Your task to perform on an android device: install app "Grab" Image 0: 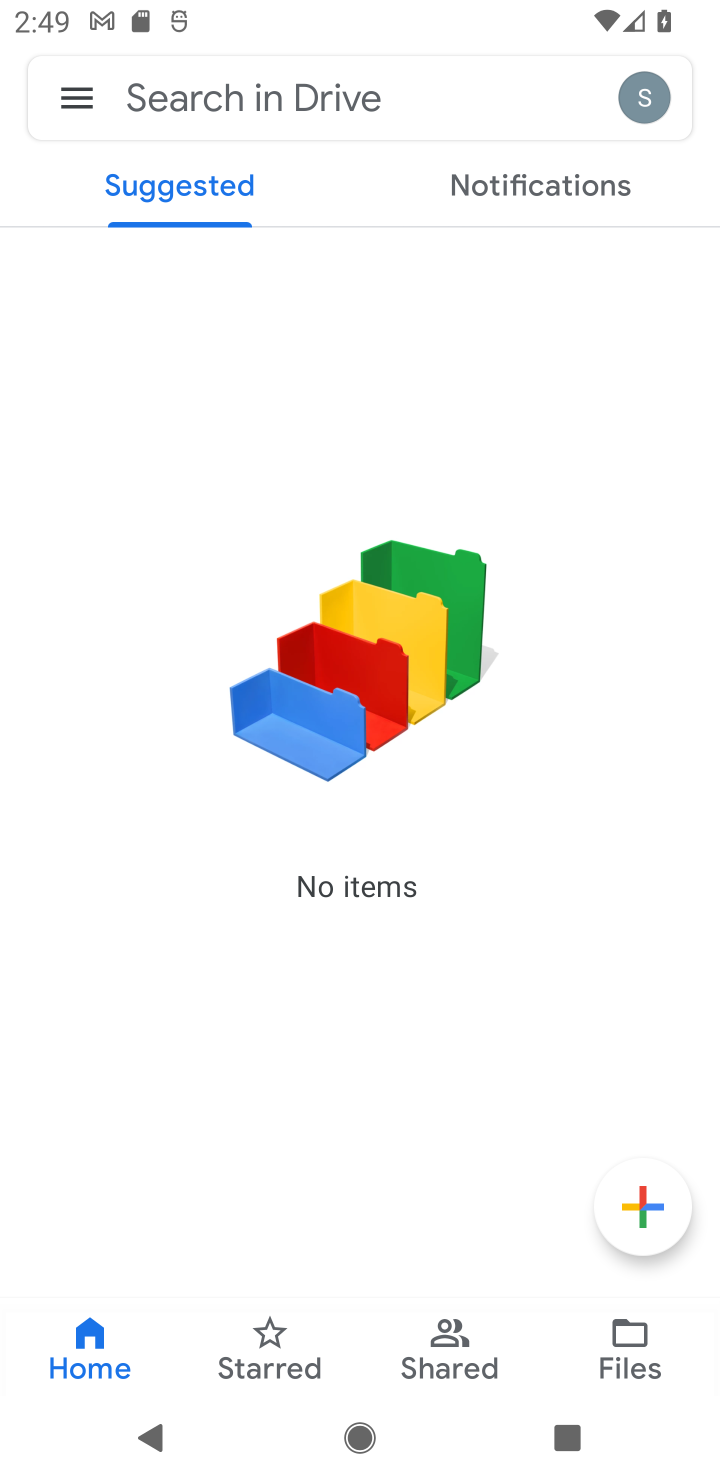
Step 0: press home button
Your task to perform on an android device: install app "Grab" Image 1: 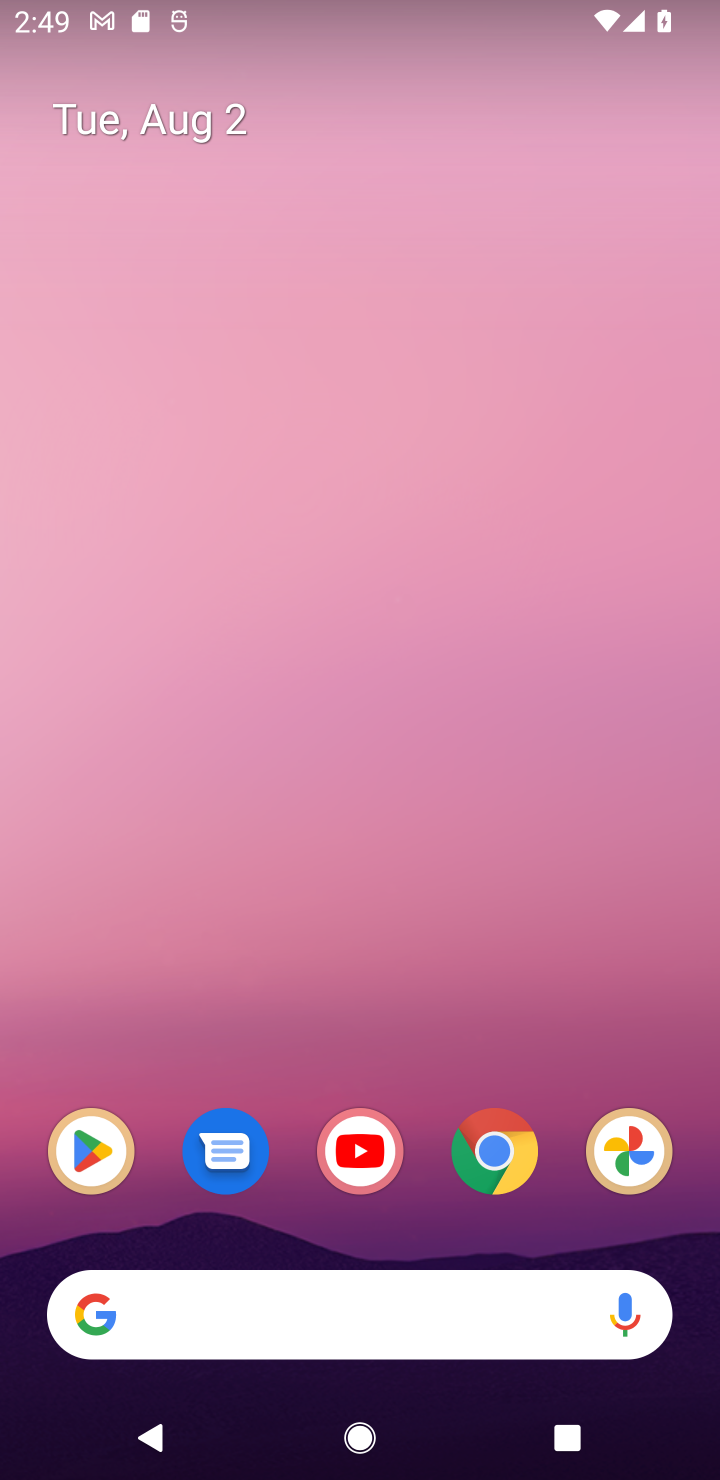
Step 1: click (82, 1166)
Your task to perform on an android device: install app "Grab" Image 2: 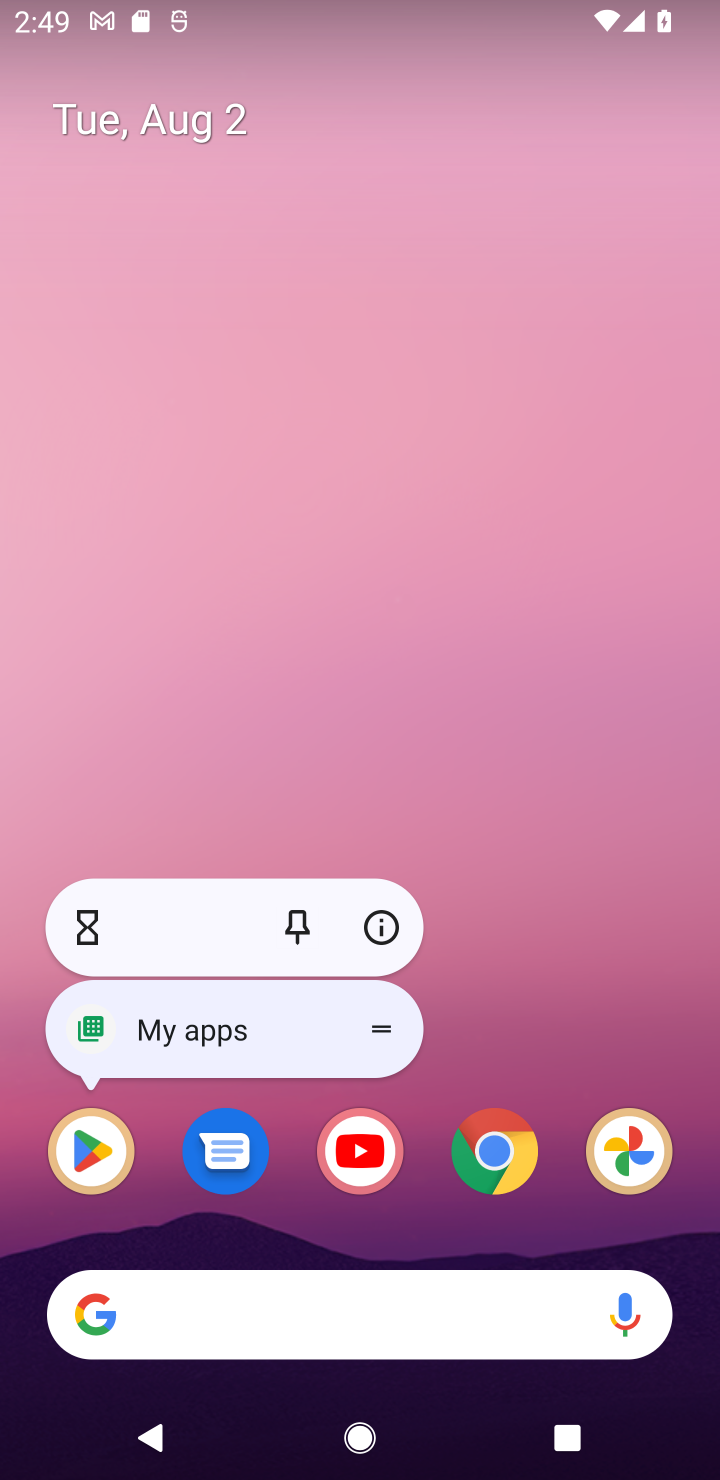
Step 2: click (98, 1143)
Your task to perform on an android device: install app "Grab" Image 3: 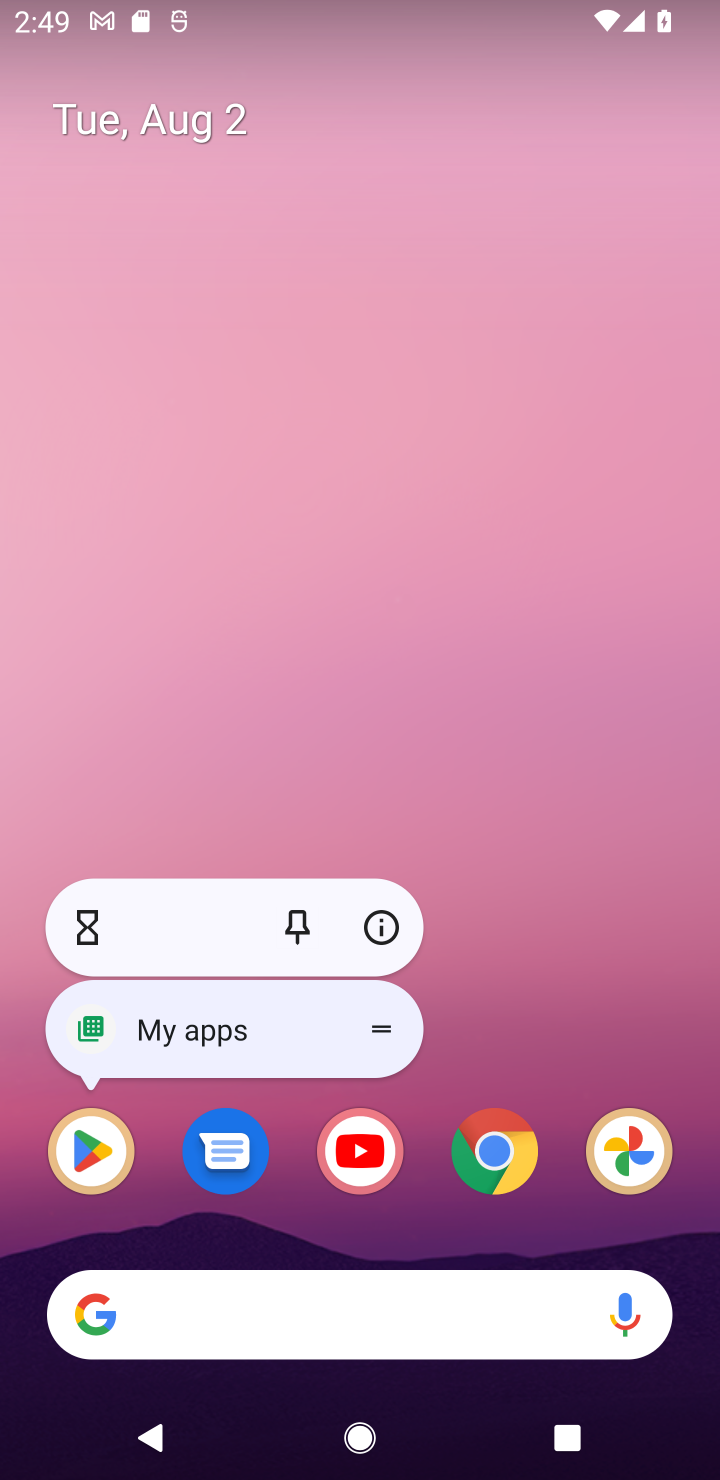
Step 3: click (573, 859)
Your task to perform on an android device: install app "Grab" Image 4: 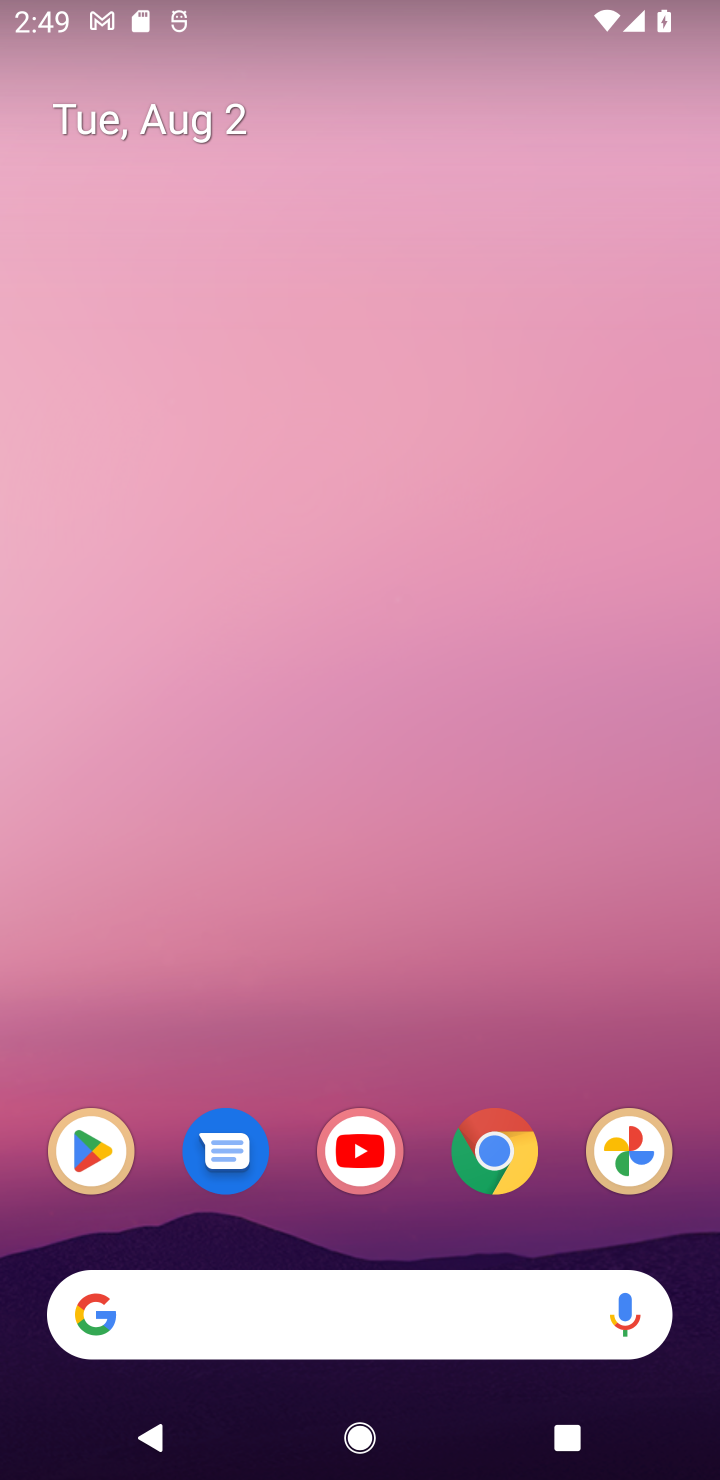
Step 4: click (104, 1170)
Your task to perform on an android device: install app "Grab" Image 5: 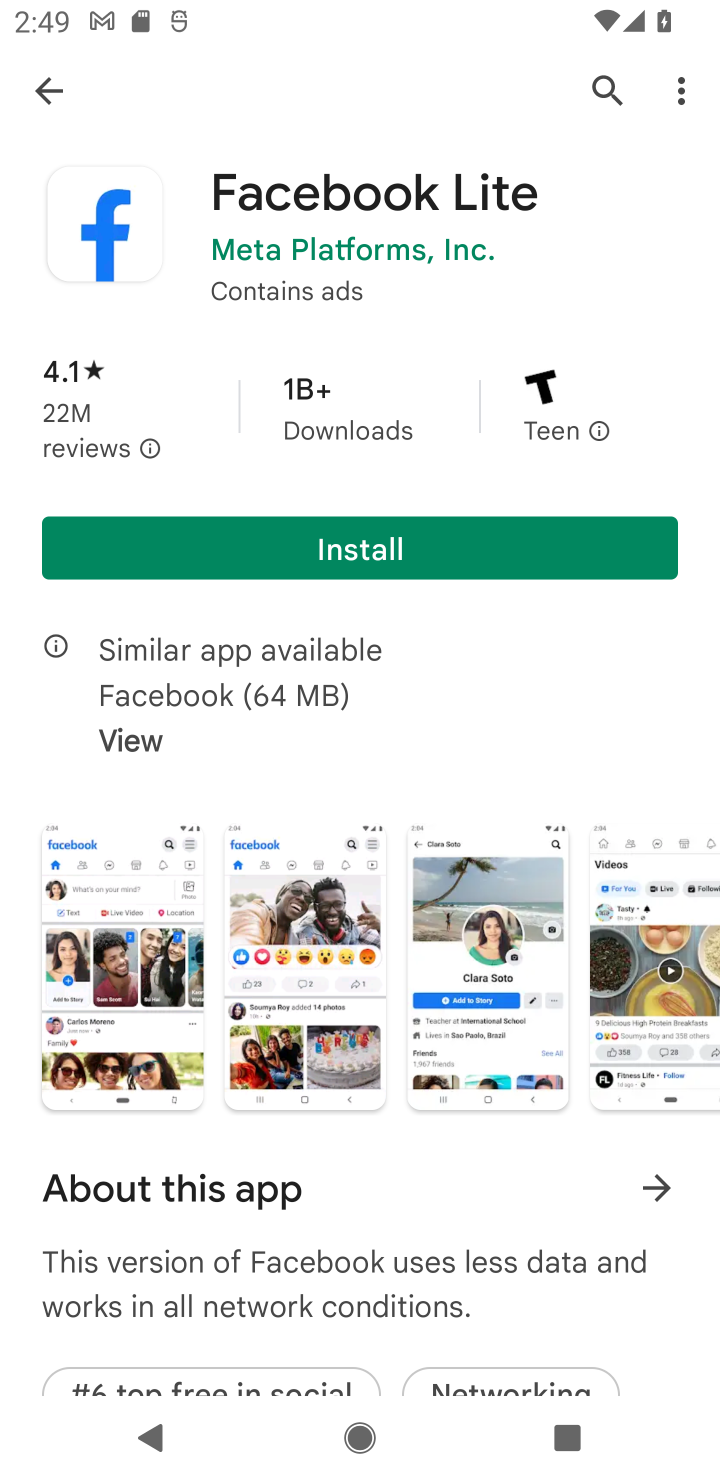
Step 5: click (99, 1158)
Your task to perform on an android device: install app "Grab" Image 6: 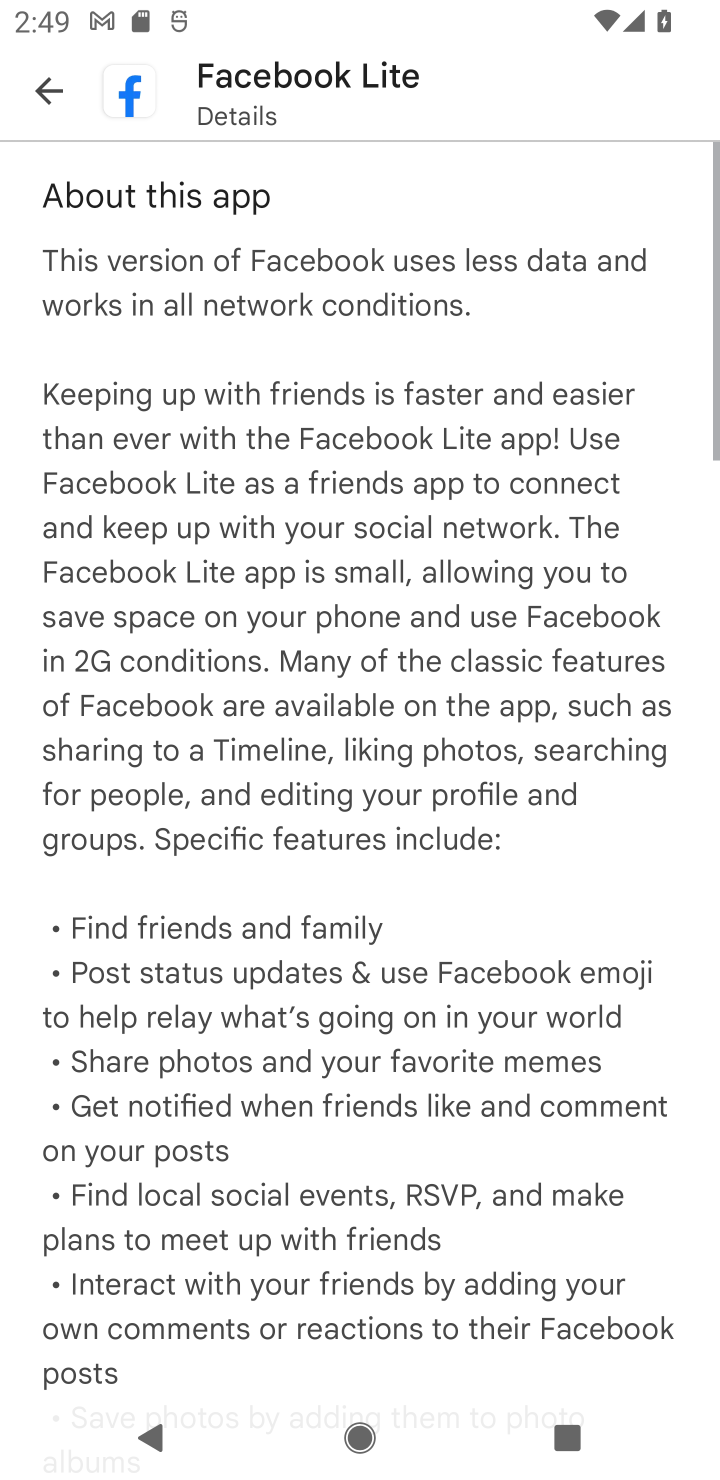
Step 6: press back button
Your task to perform on an android device: install app "Grab" Image 7: 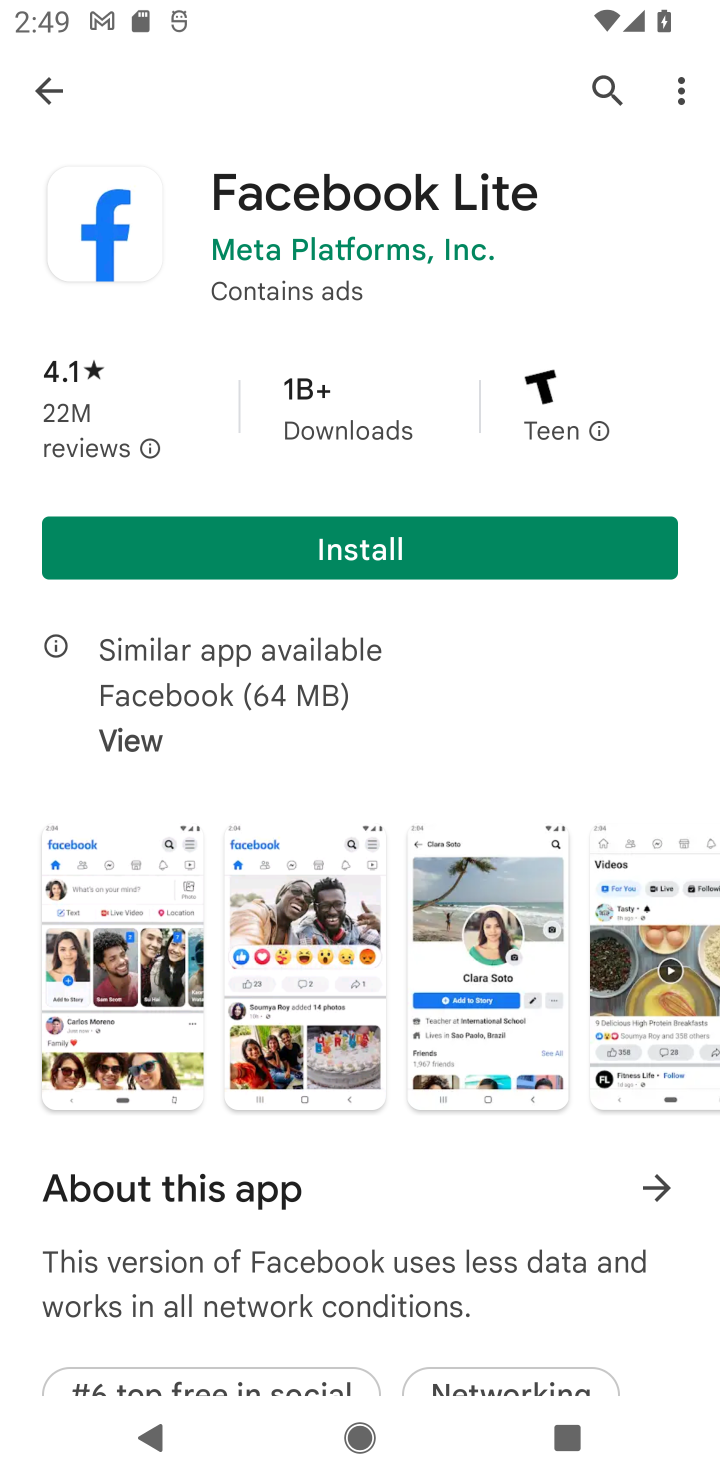
Step 7: press back button
Your task to perform on an android device: install app "Grab" Image 8: 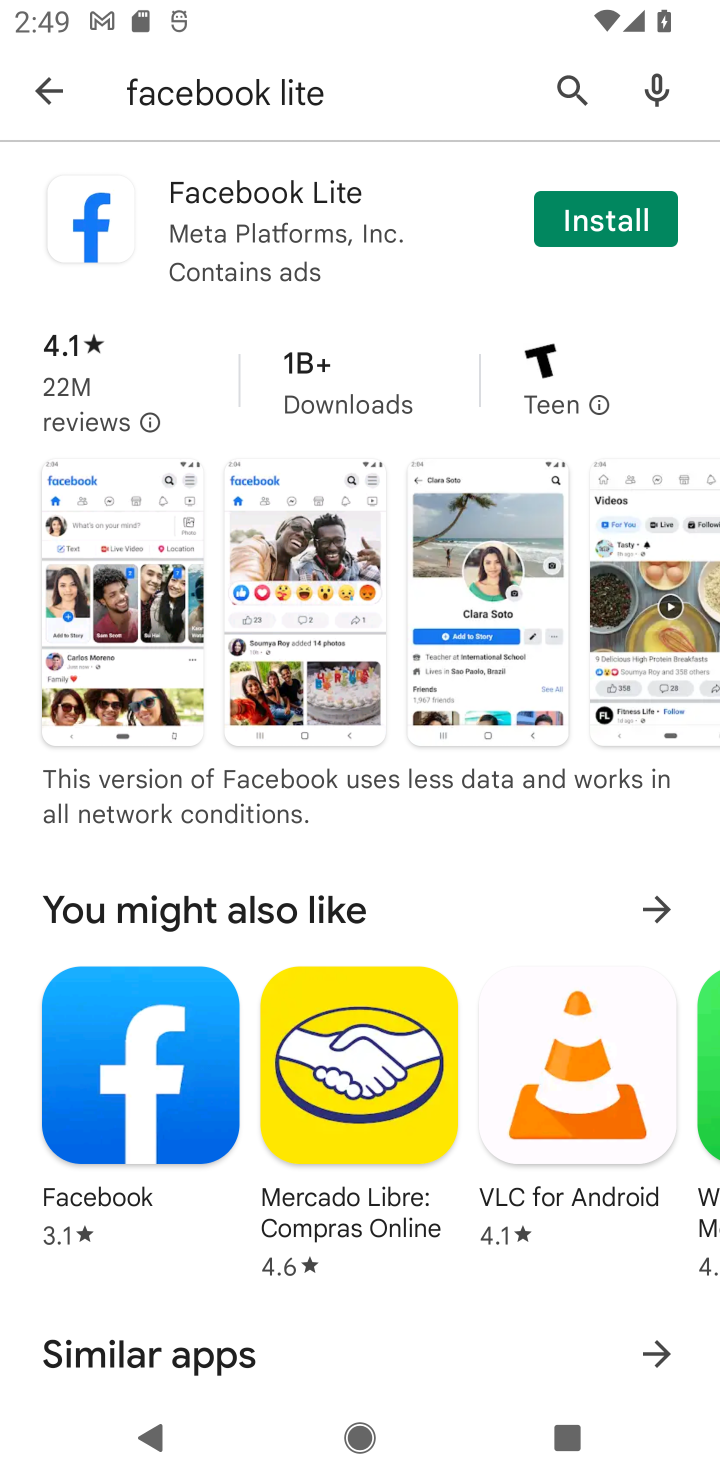
Step 8: press back button
Your task to perform on an android device: install app "Grab" Image 9: 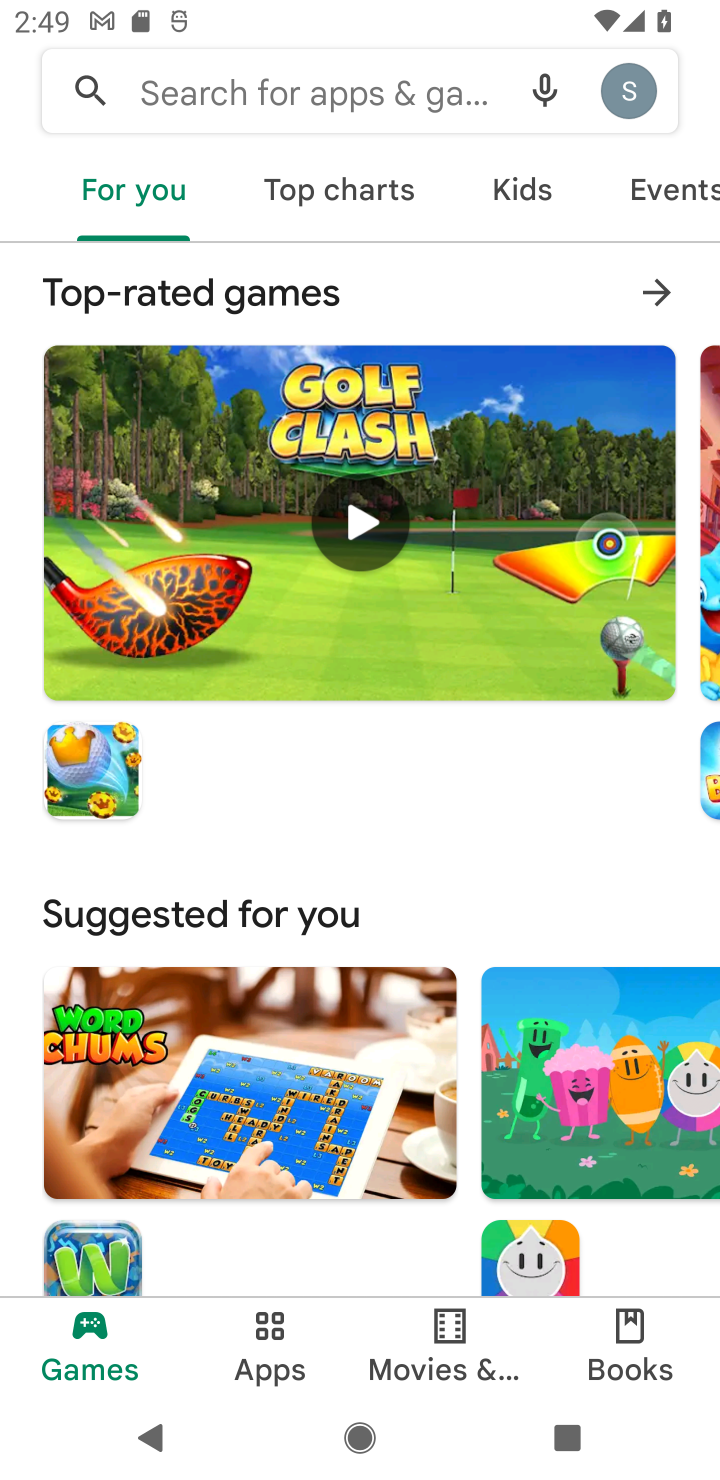
Step 9: click (296, 83)
Your task to perform on an android device: install app "Grab" Image 10: 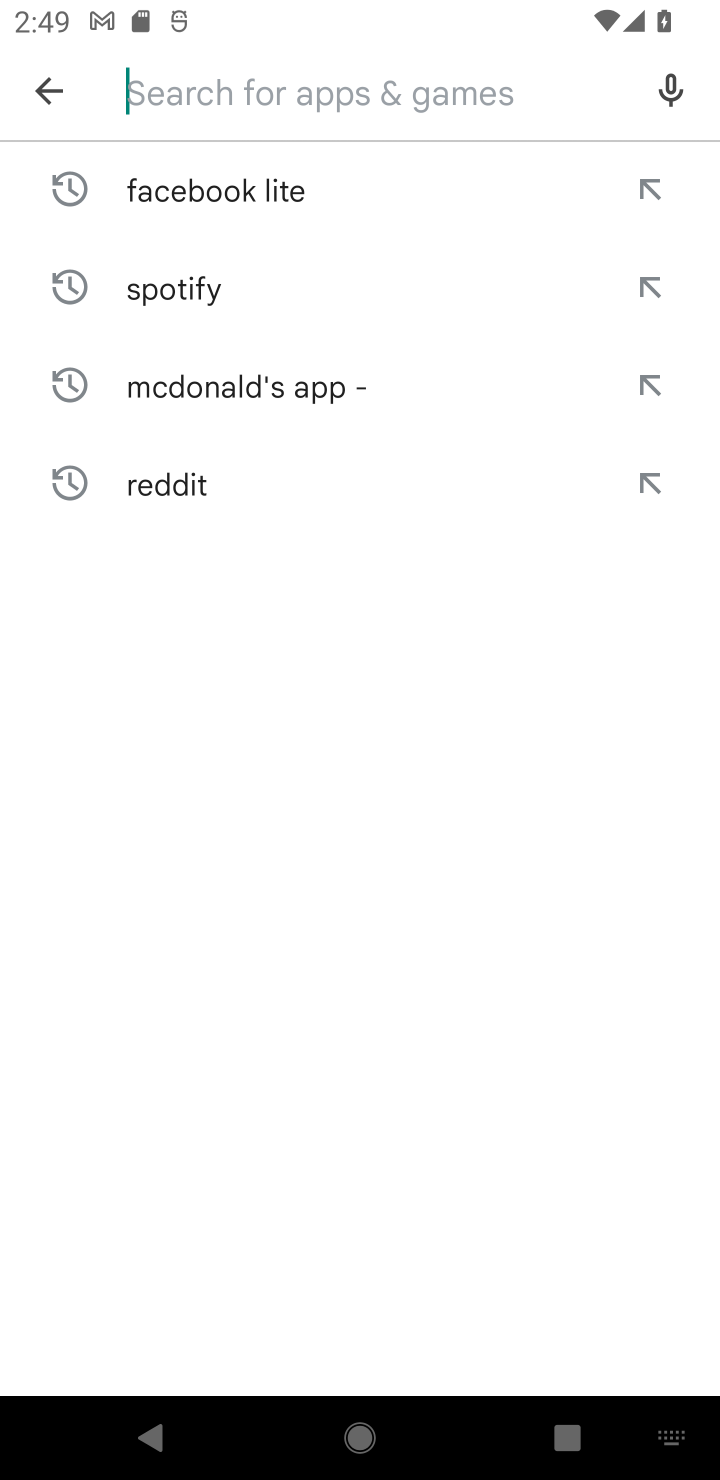
Step 10: type "grab"
Your task to perform on an android device: install app "Grab" Image 11: 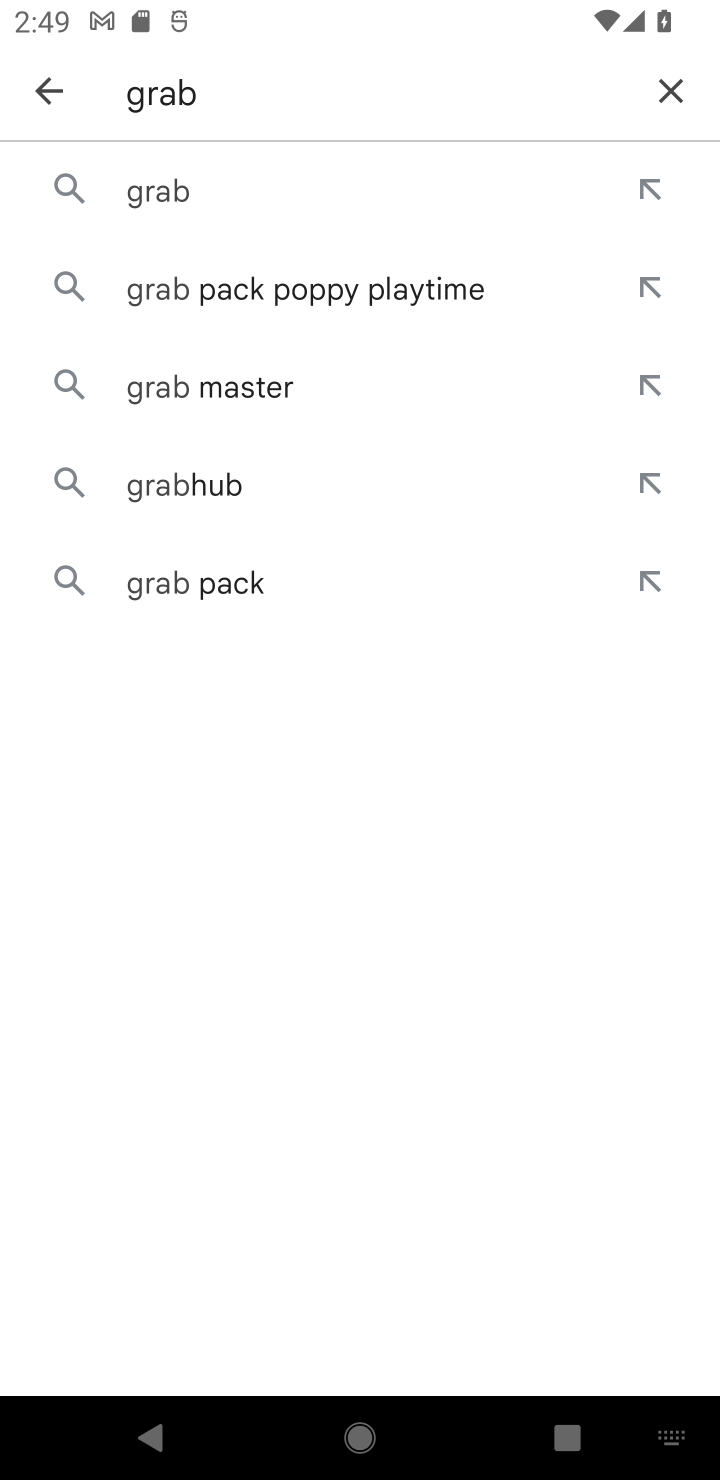
Step 11: click (354, 192)
Your task to perform on an android device: install app "Grab" Image 12: 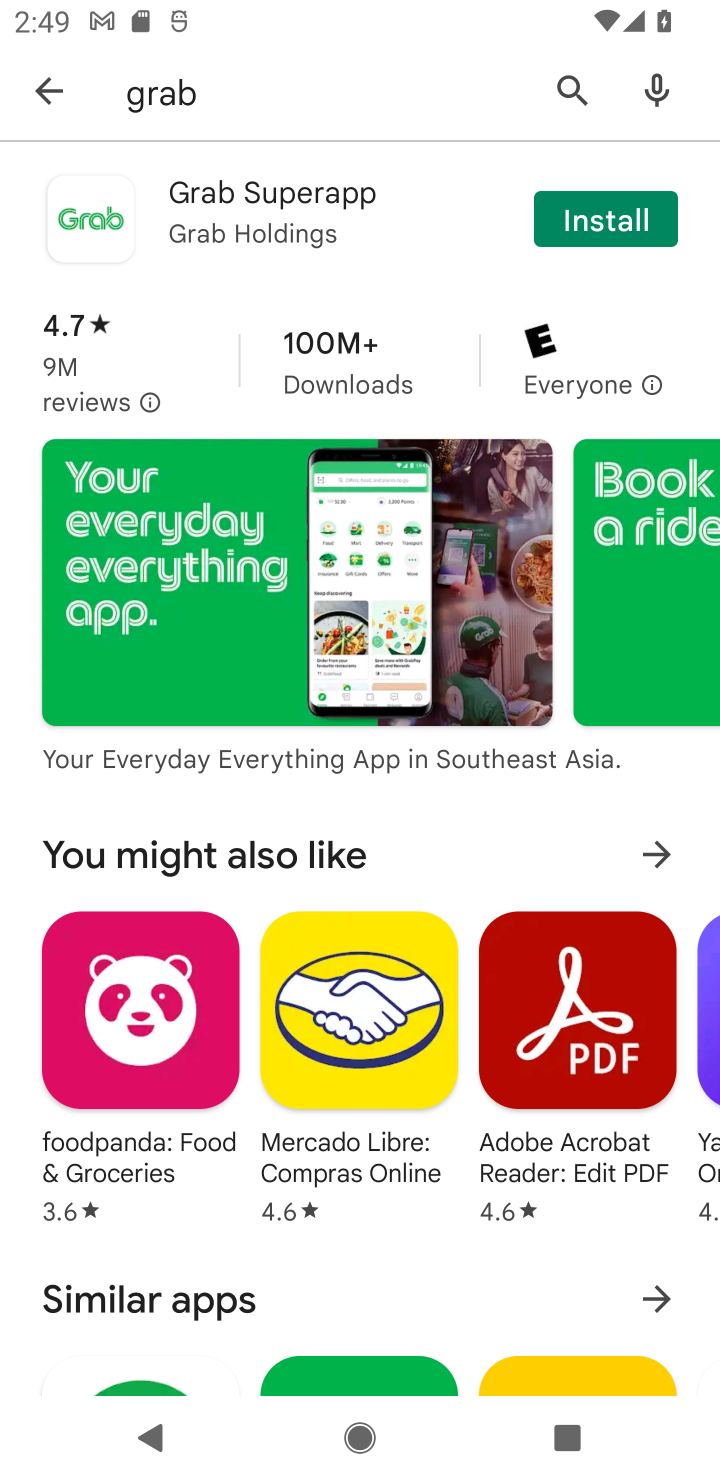
Step 12: click (587, 220)
Your task to perform on an android device: install app "Grab" Image 13: 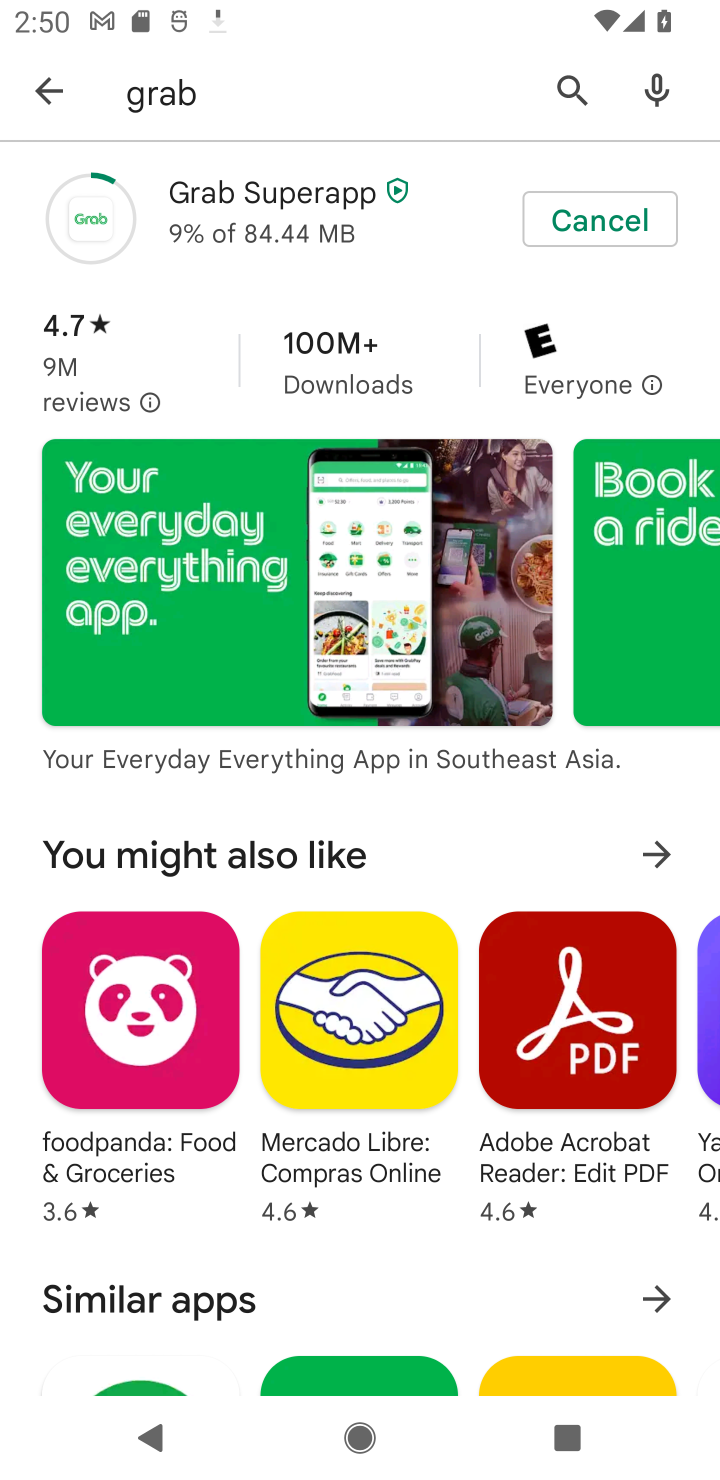
Step 13: click (633, 219)
Your task to perform on an android device: install app "Grab" Image 14: 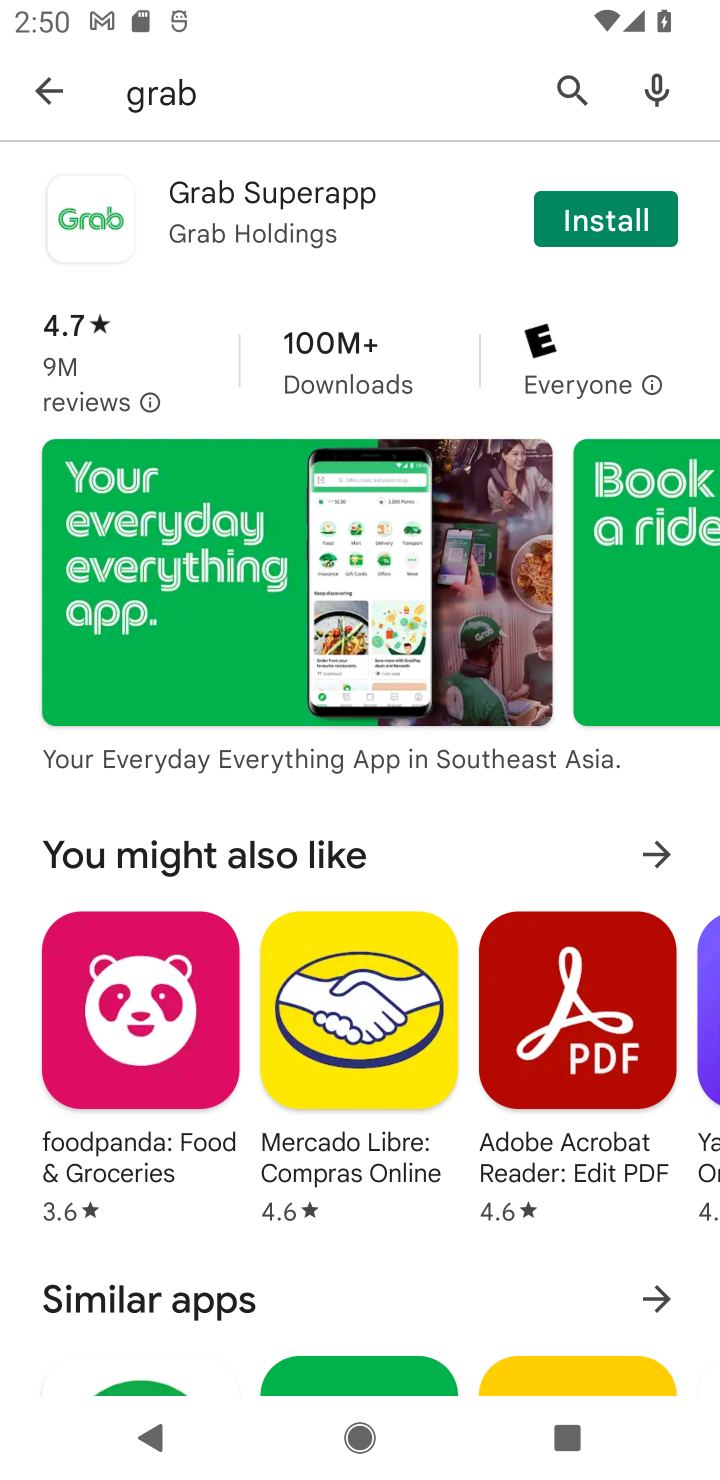
Step 14: click (48, 109)
Your task to perform on an android device: install app "Grab" Image 15: 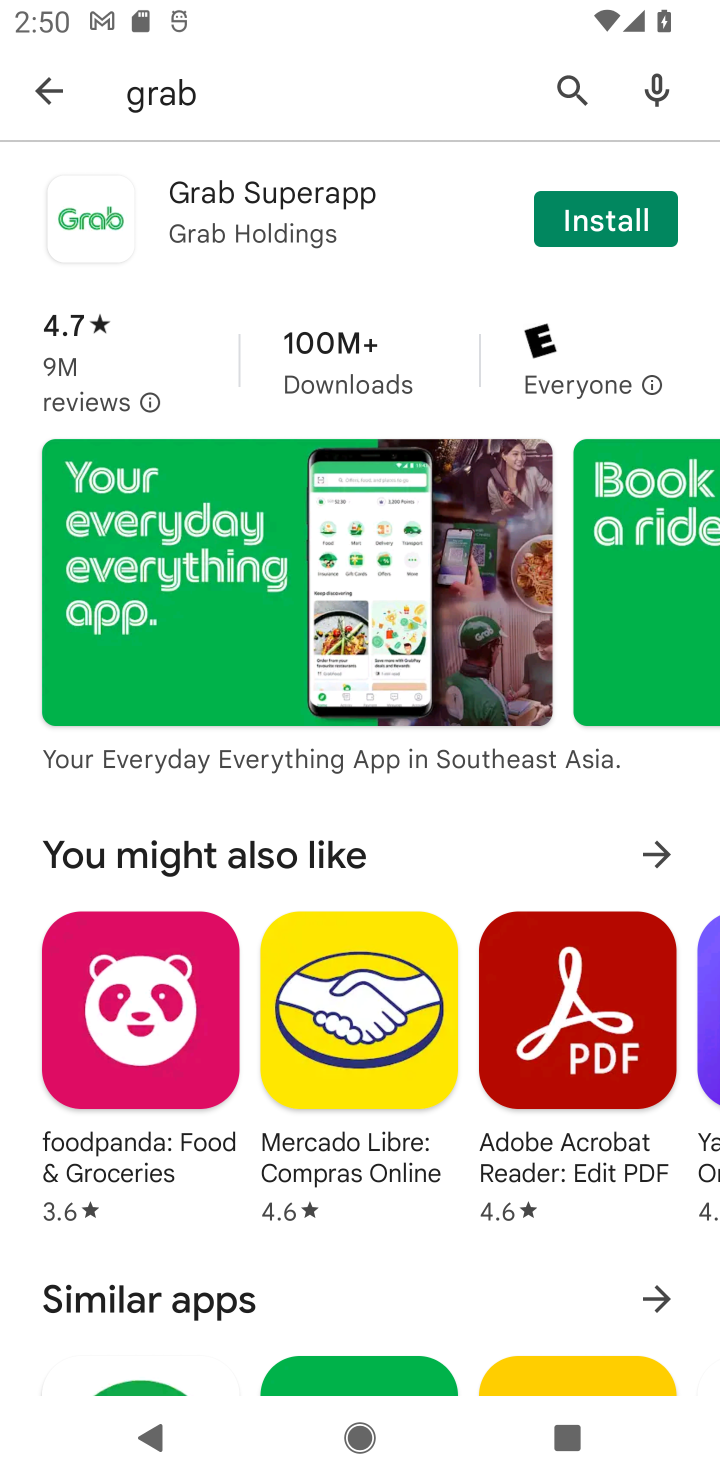
Step 15: press back button
Your task to perform on an android device: install app "Grab" Image 16: 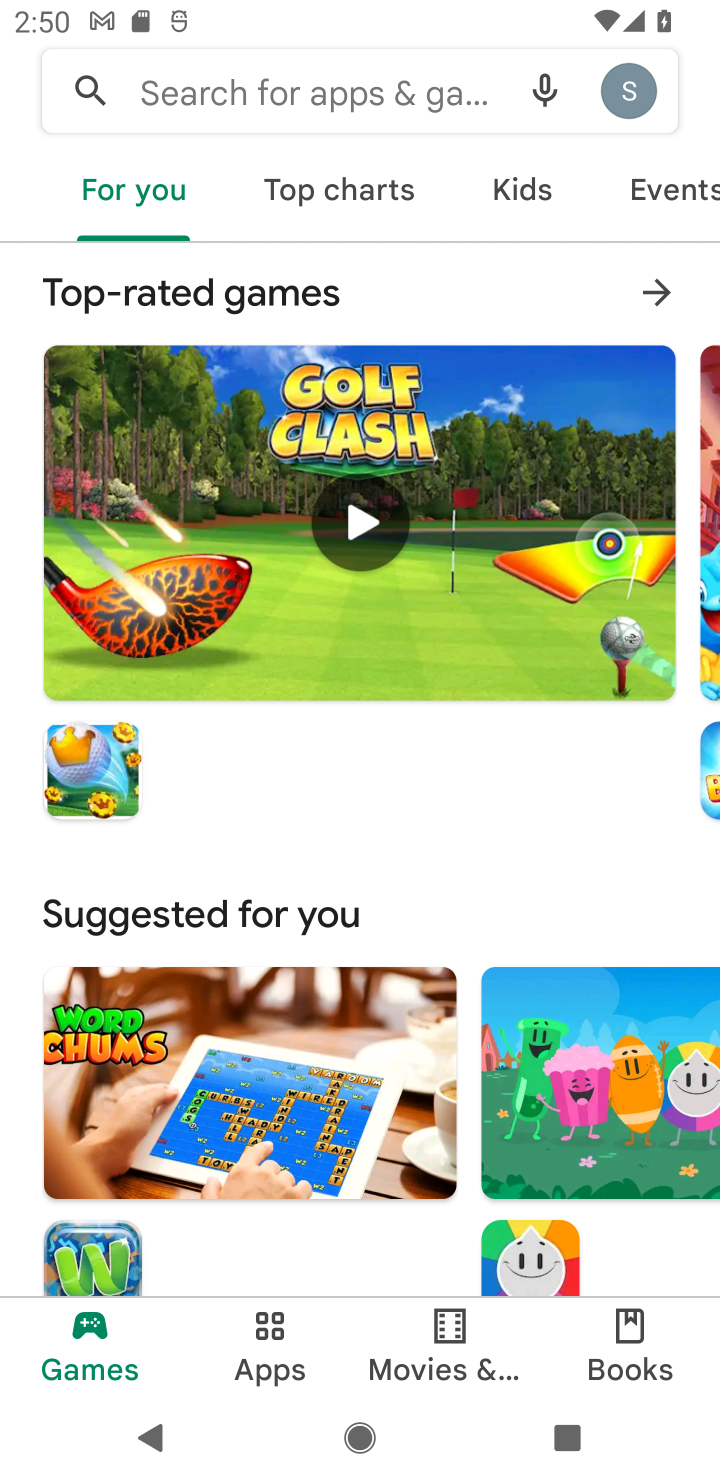
Step 16: click (269, 108)
Your task to perform on an android device: install app "Grab" Image 17: 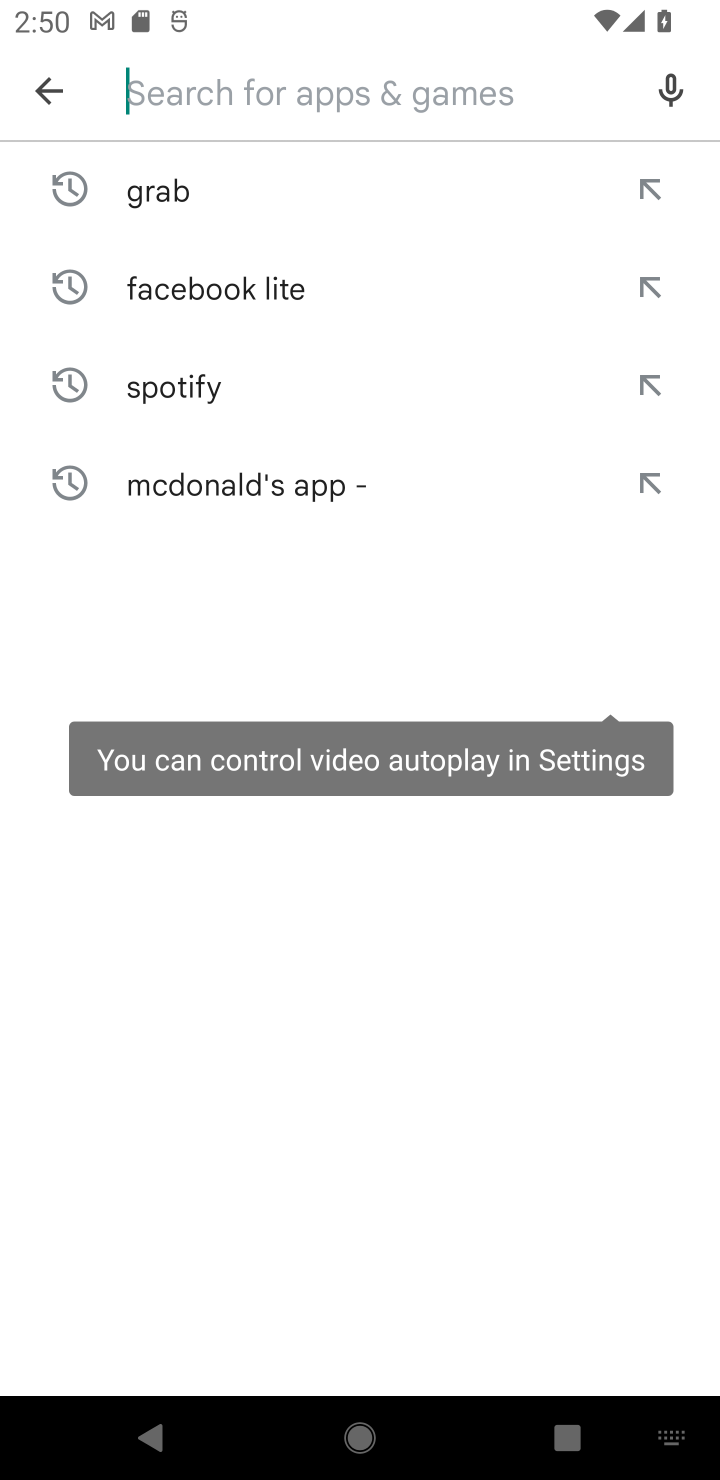
Step 17: type "grab"
Your task to perform on an android device: install app "Grab" Image 18: 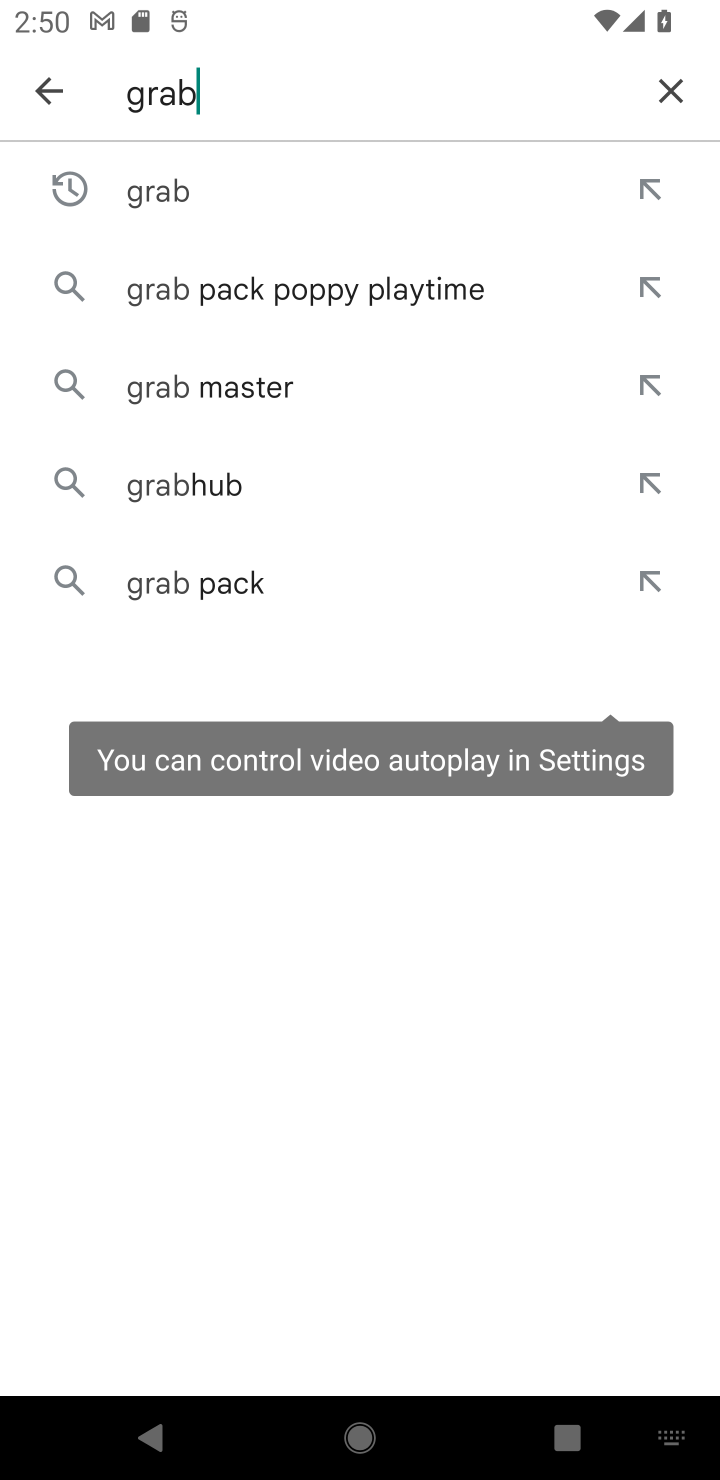
Step 18: click (262, 200)
Your task to perform on an android device: install app "Grab" Image 19: 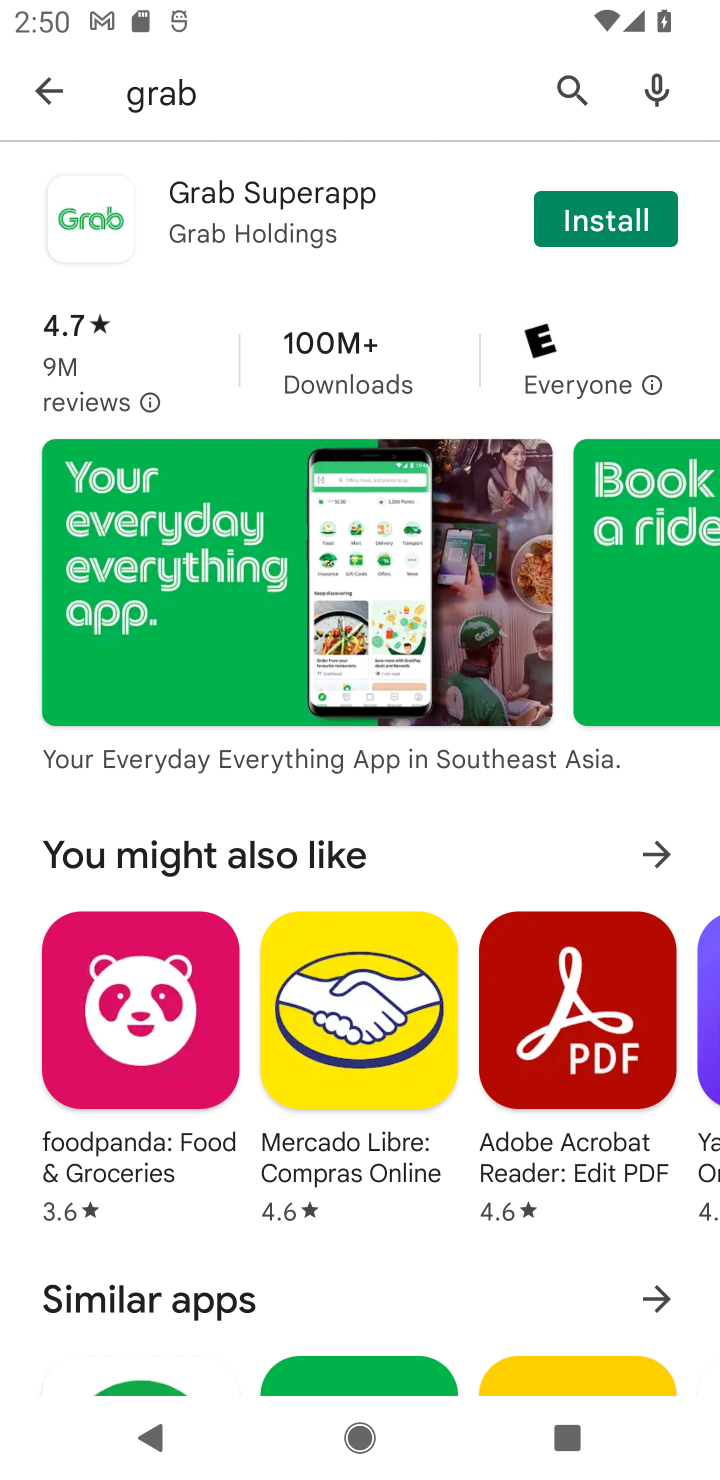
Step 19: click (609, 233)
Your task to perform on an android device: install app "Grab" Image 20: 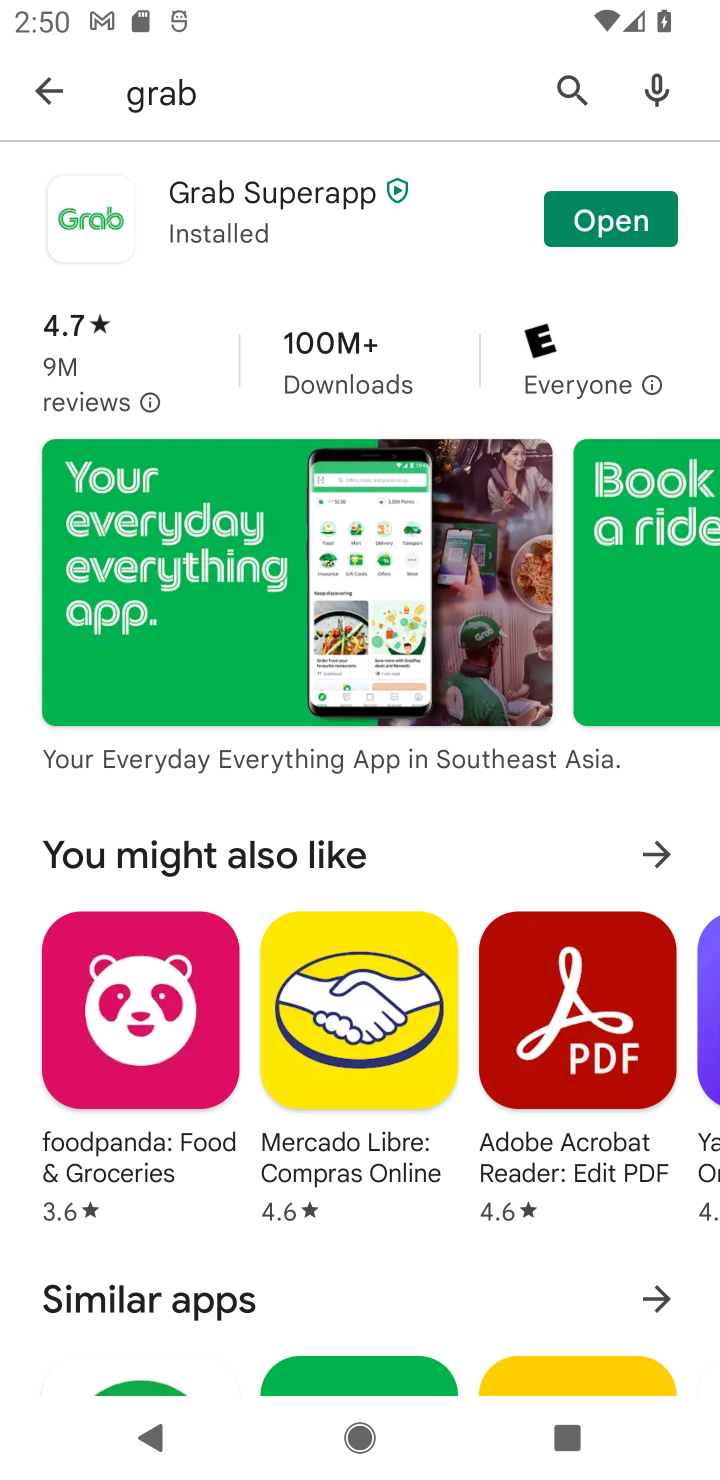
Step 20: task complete